Your task to perform on an android device: See recent photos Image 0: 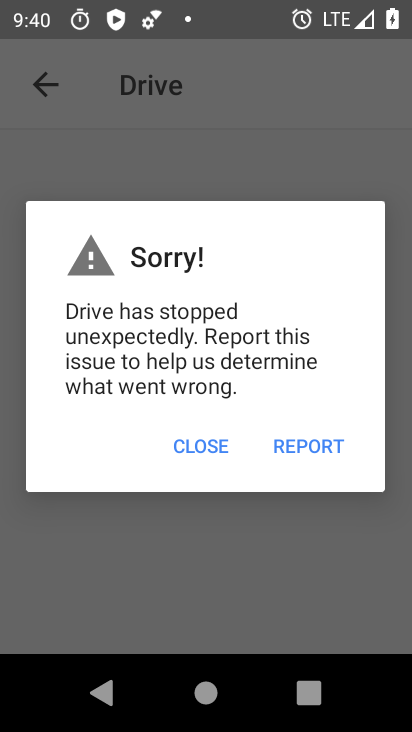
Step 0: press home button
Your task to perform on an android device: See recent photos Image 1: 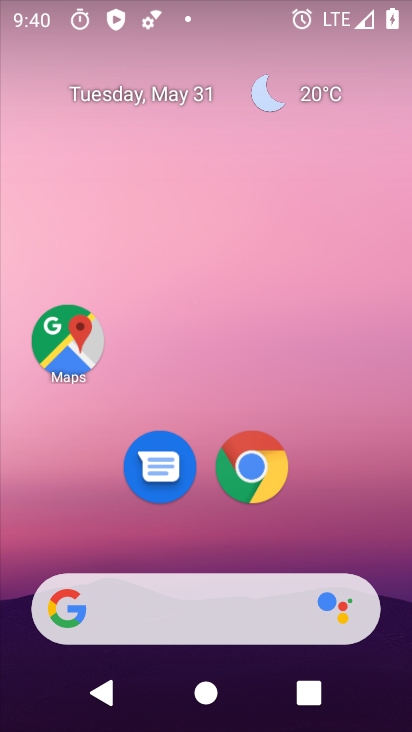
Step 1: drag from (217, 537) to (217, 139)
Your task to perform on an android device: See recent photos Image 2: 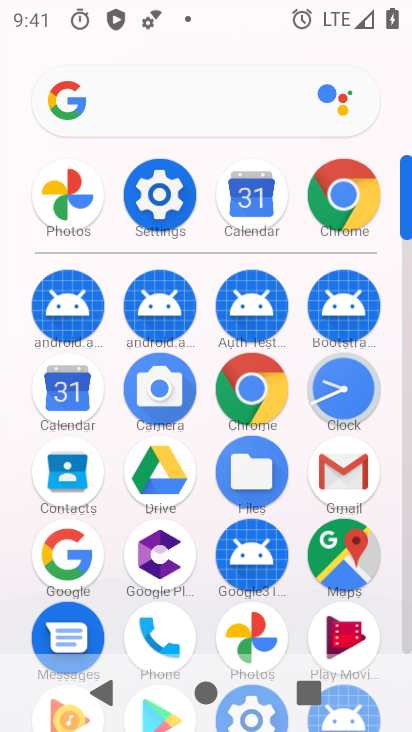
Step 2: drag from (198, 520) to (171, 171)
Your task to perform on an android device: See recent photos Image 3: 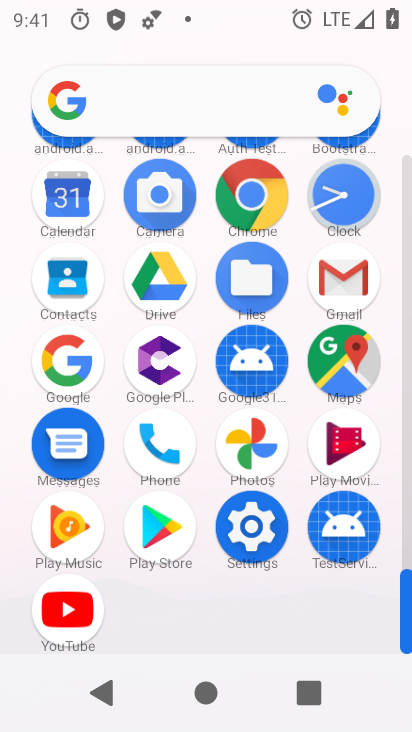
Step 3: click (261, 425)
Your task to perform on an android device: See recent photos Image 4: 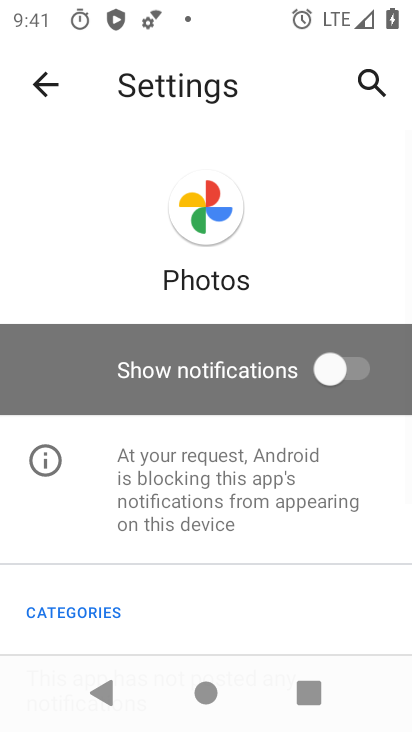
Step 4: drag from (264, 470) to (269, 80)
Your task to perform on an android device: See recent photos Image 5: 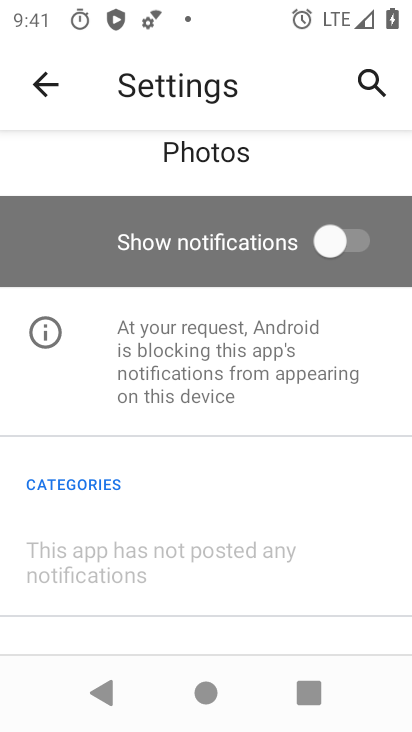
Step 5: click (54, 104)
Your task to perform on an android device: See recent photos Image 6: 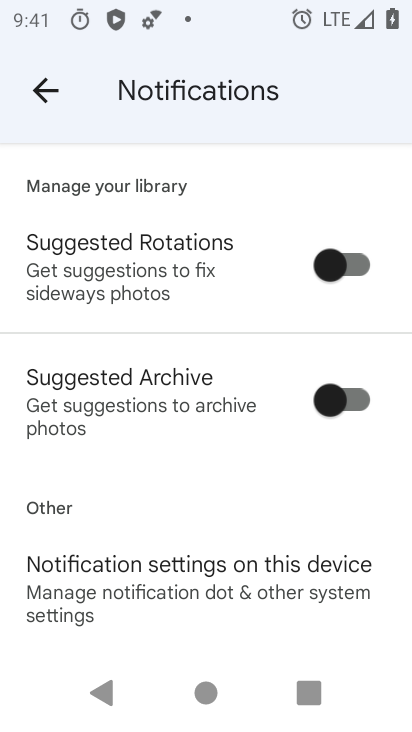
Step 6: drag from (200, 487) to (239, 252)
Your task to perform on an android device: See recent photos Image 7: 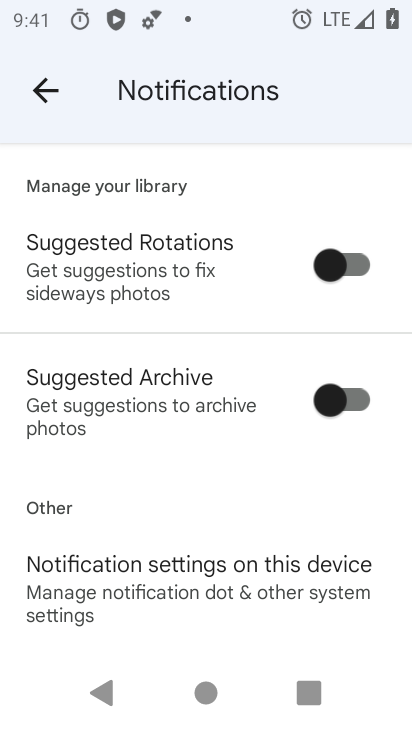
Step 7: drag from (267, 295) to (351, 694)
Your task to perform on an android device: See recent photos Image 8: 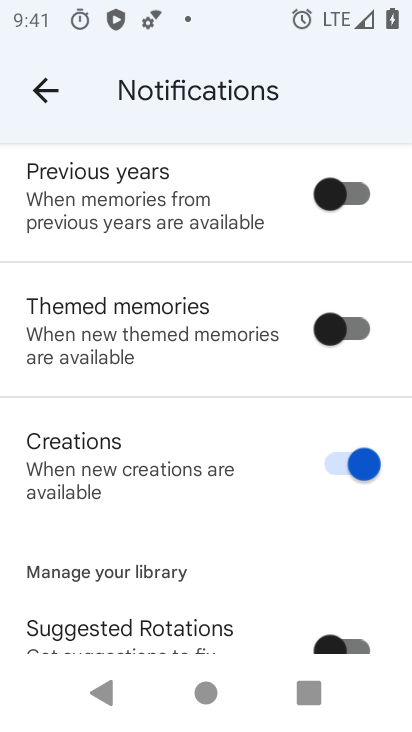
Step 8: click (31, 93)
Your task to perform on an android device: See recent photos Image 9: 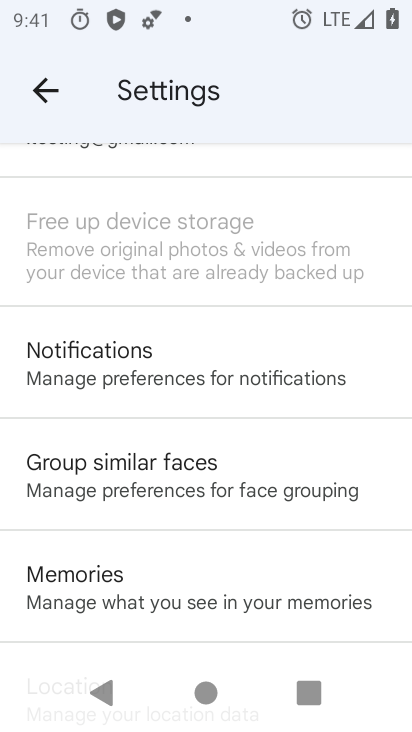
Step 9: drag from (210, 242) to (318, 664)
Your task to perform on an android device: See recent photos Image 10: 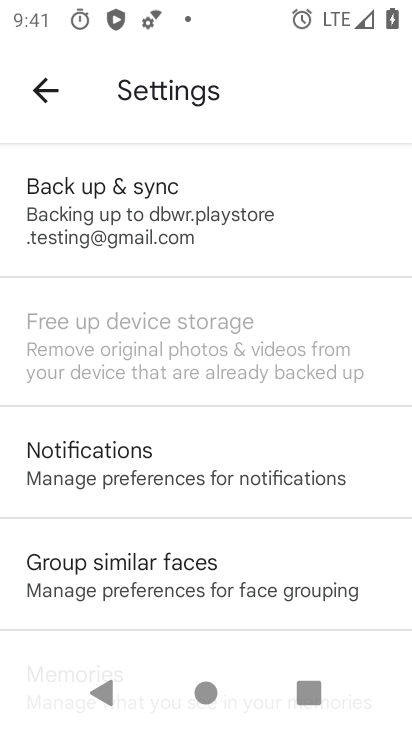
Step 10: click (46, 92)
Your task to perform on an android device: See recent photos Image 11: 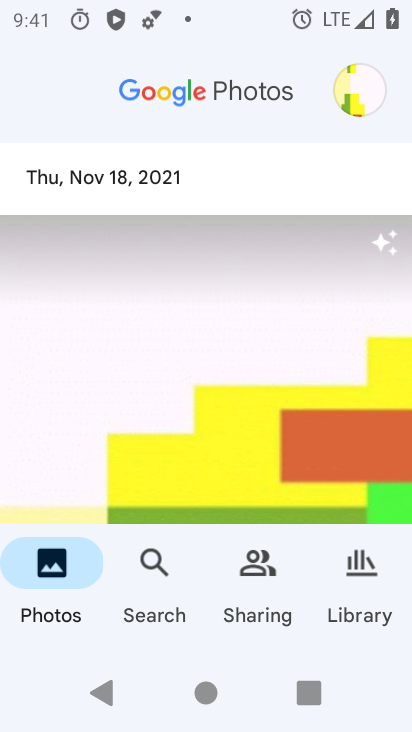
Step 11: drag from (271, 437) to (274, 196)
Your task to perform on an android device: See recent photos Image 12: 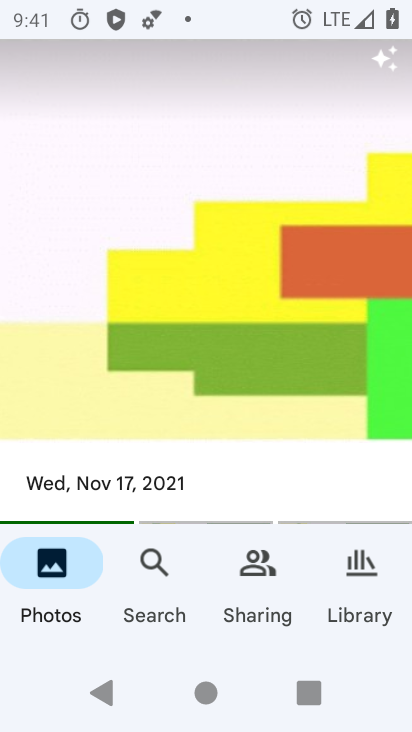
Step 12: drag from (361, 322) to (26, 410)
Your task to perform on an android device: See recent photos Image 13: 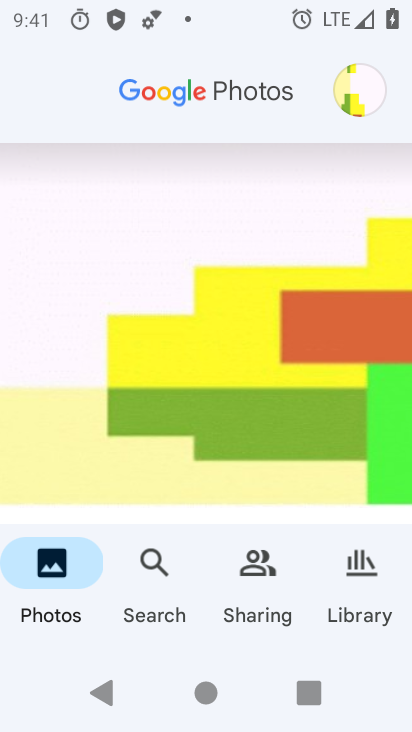
Step 13: drag from (268, 413) to (339, 11)
Your task to perform on an android device: See recent photos Image 14: 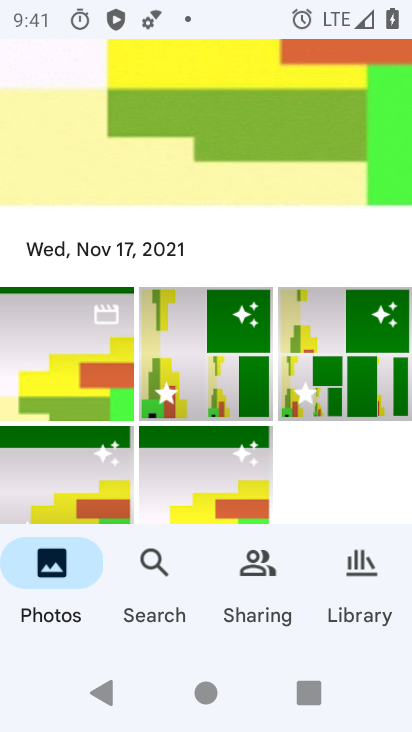
Step 14: click (221, 321)
Your task to perform on an android device: See recent photos Image 15: 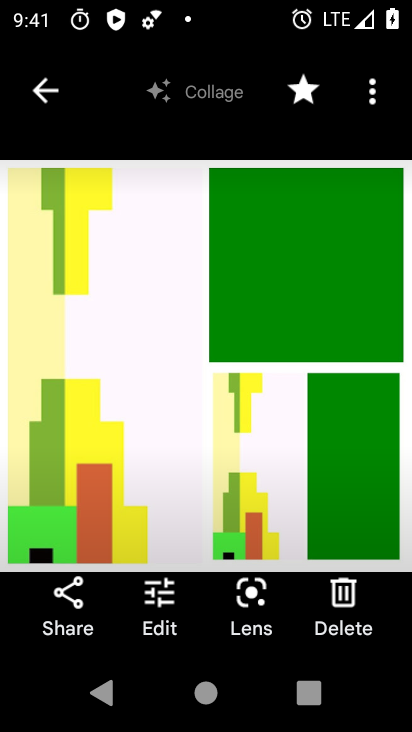
Step 15: task complete